Your task to perform on an android device: remove spam from my inbox in the gmail app Image 0: 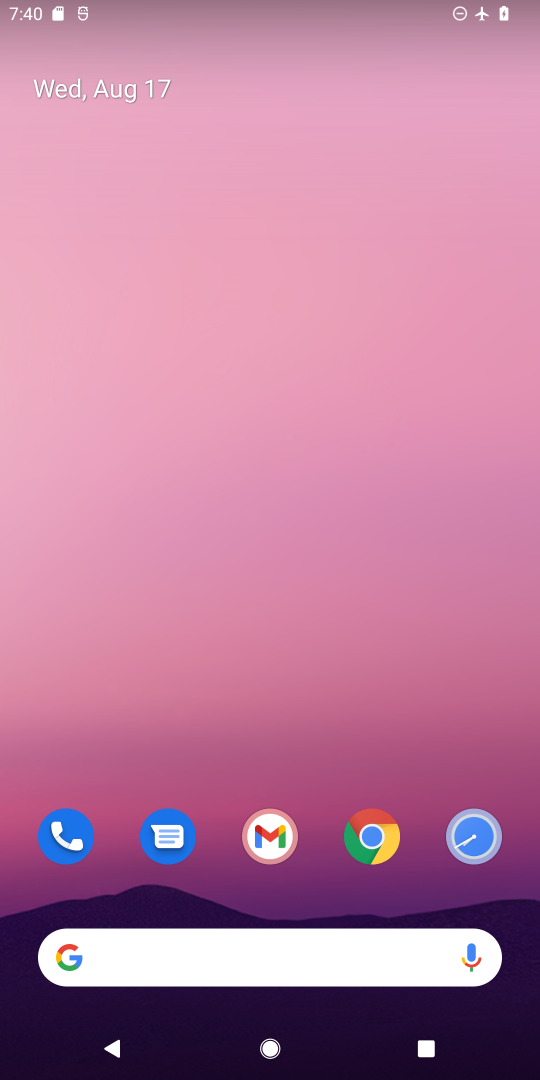
Step 0: drag from (185, 740) to (189, 209)
Your task to perform on an android device: remove spam from my inbox in the gmail app Image 1: 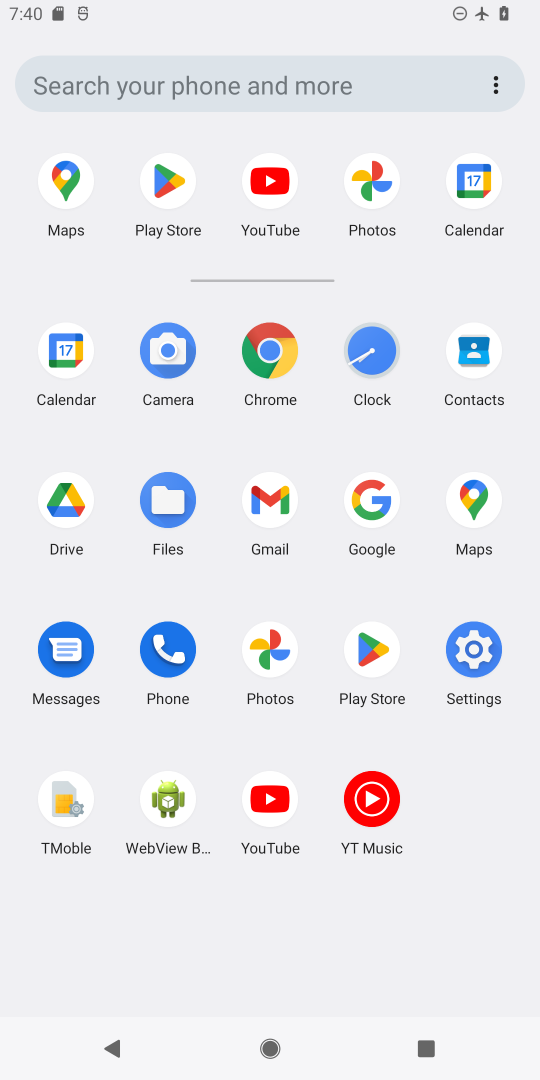
Step 1: click (273, 502)
Your task to perform on an android device: remove spam from my inbox in the gmail app Image 2: 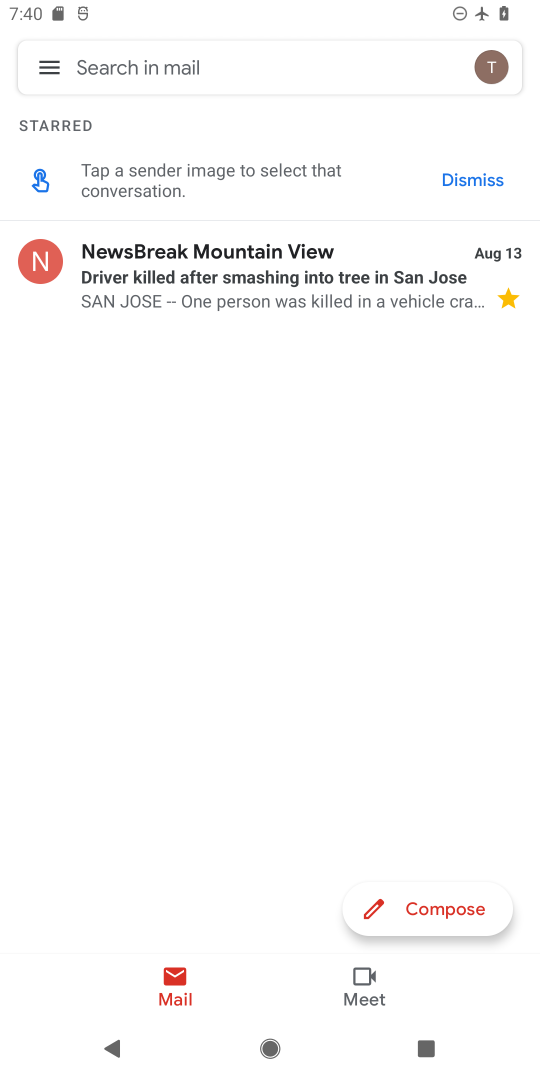
Step 2: click (50, 63)
Your task to perform on an android device: remove spam from my inbox in the gmail app Image 3: 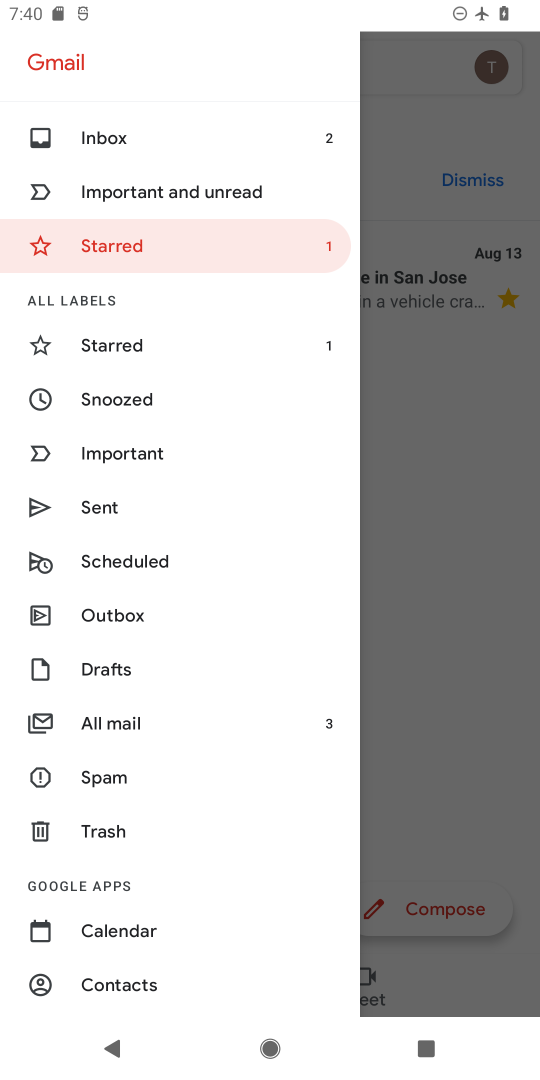
Step 3: click (135, 757)
Your task to perform on an android device: remove spam from my inbox in the gmail app Image 4: 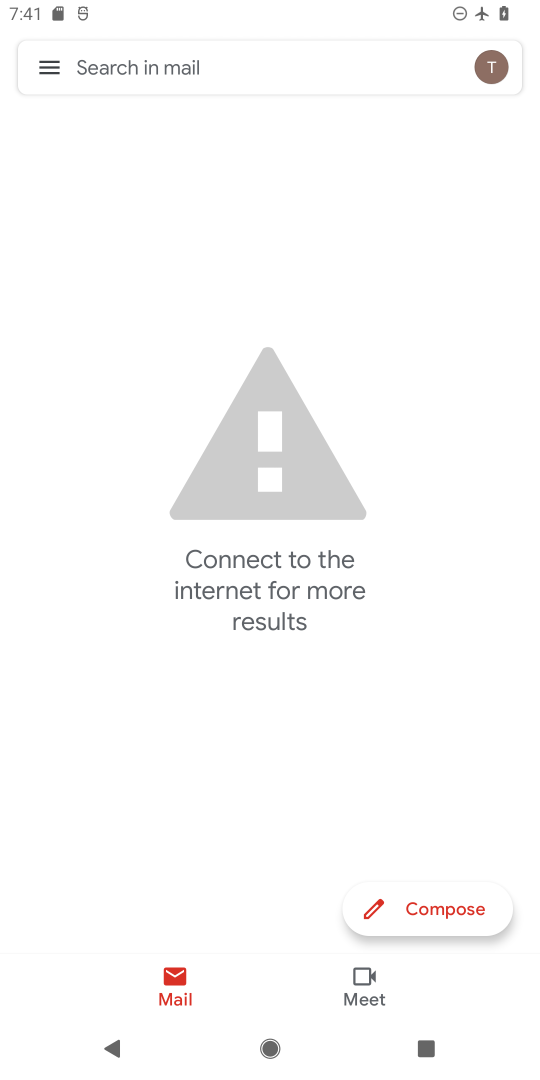
Step 4: click (25, 54)
Your task to perform on an android device: remove spam from my inbox in the gmail app Image 5: 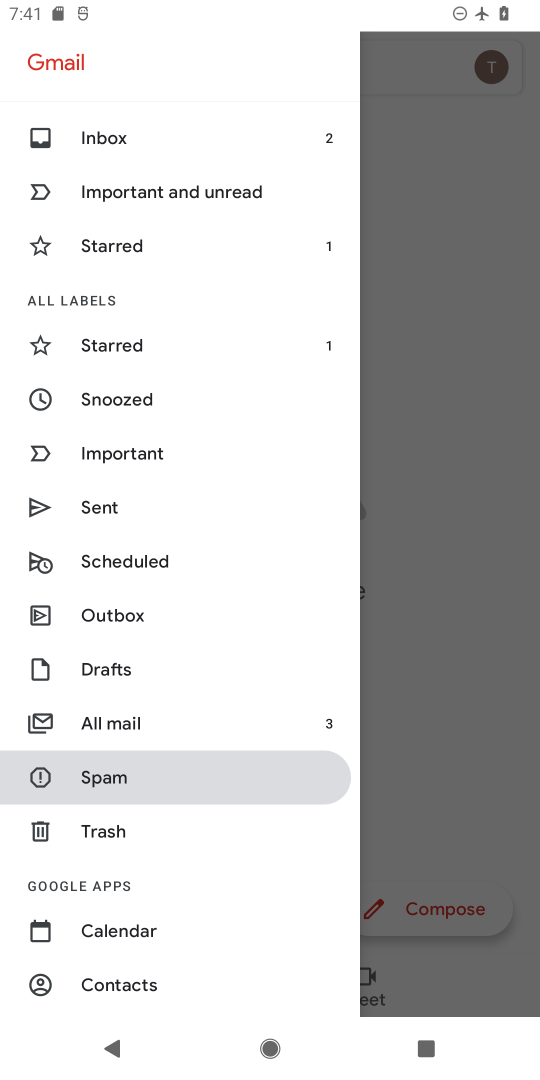
Step 5: click (147, 768)
Your task to perform on an android device: remove spam from my inbox in the gmail app Image 6: 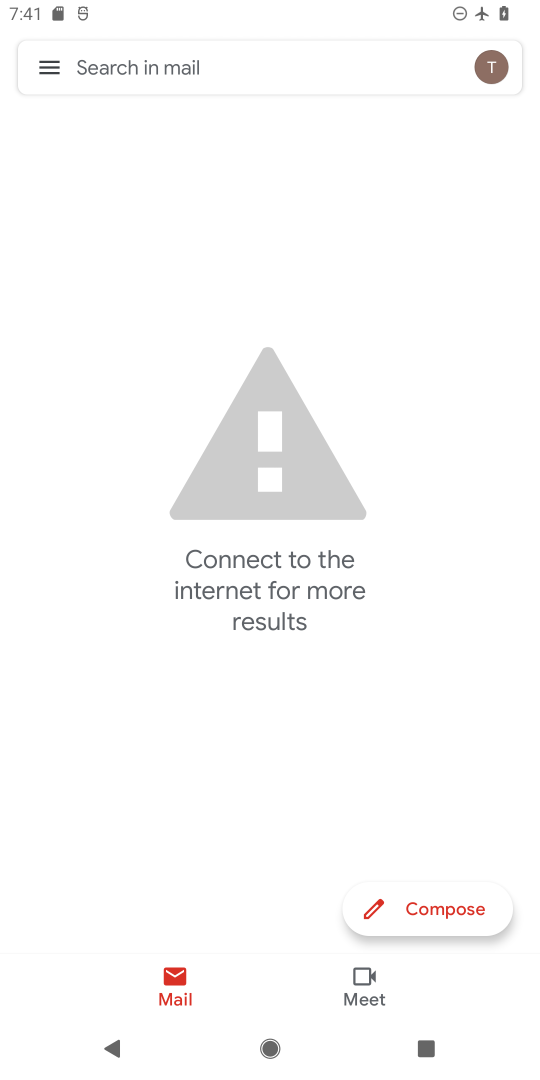
Step 6: task complete